Your task to perform on an android device: Search for vegetarian restaurants on Maps Image 0: 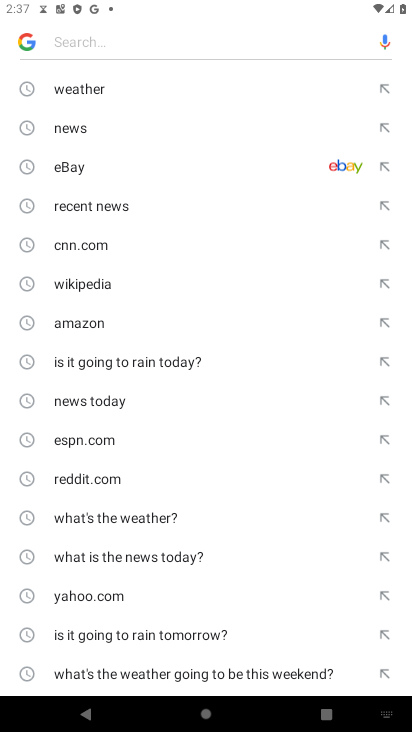
Step 0: press back button
Your task to perform on an android device: Search for vegetarian restaurants on Maps Image 1: 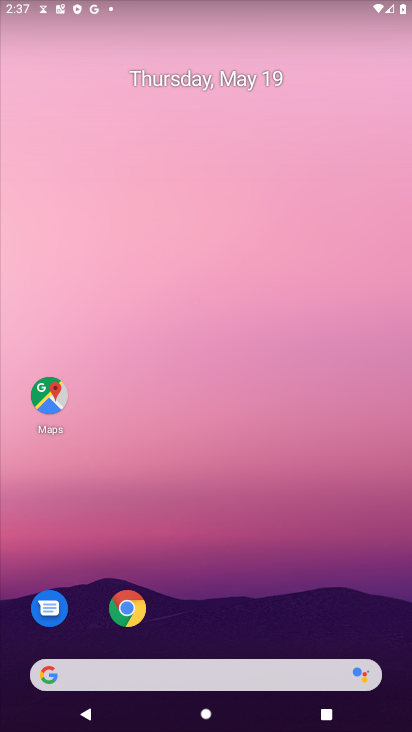
Step 1: click (44, 400)
Your task to perform on an android device: Search for vegetarian restaurants on Maps Image 2: 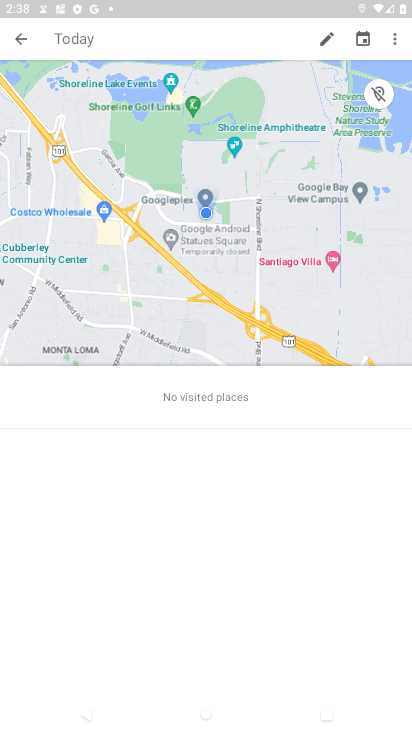
Step 2: click (22, 42)
Your task to perform on an android device: Search for vegetarian restaurants on Maps Image 3: 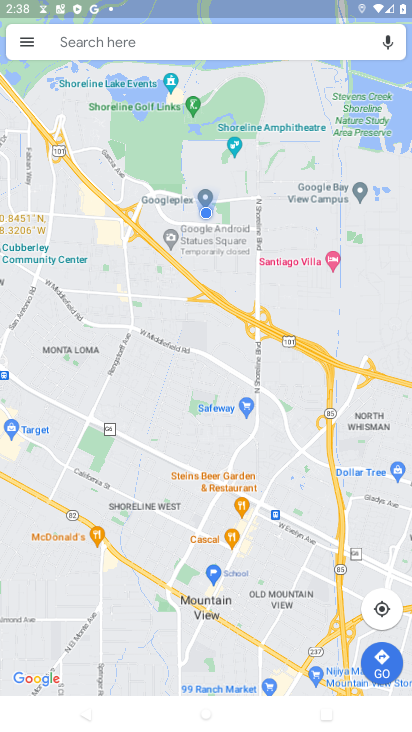
Step 3: click (123, 35)
Your task to perform on an android device: Search for vegetarian restaurants on Maps Image 4: 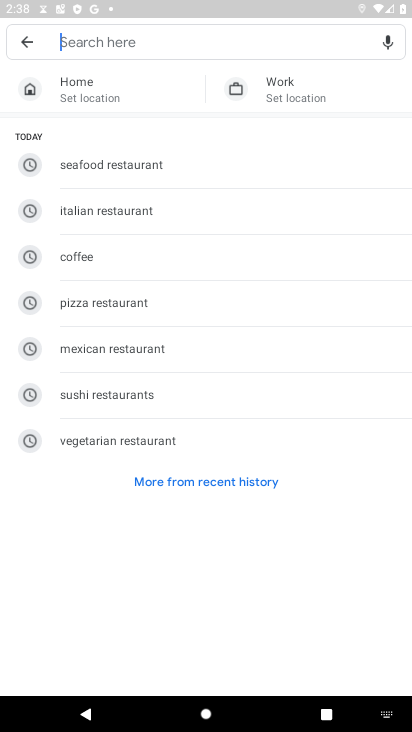
Step 4: click (192, 439)
Your task to perform on an android device: Search for vegetarian restaurants on Maps Image 5: 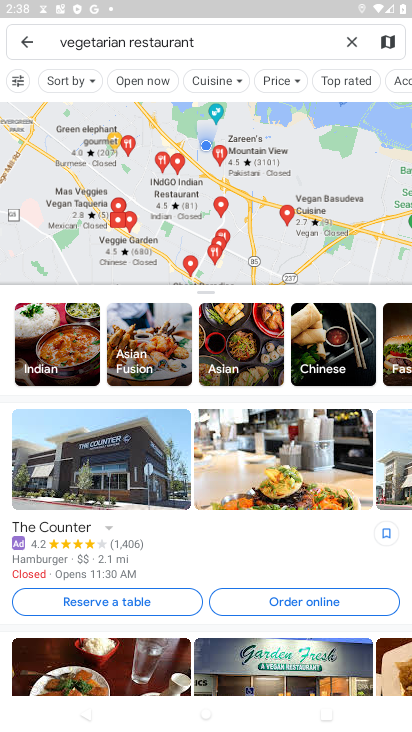
Step 5: task complete